Your task to perform on an android device: Open ESPN.com Image 0: 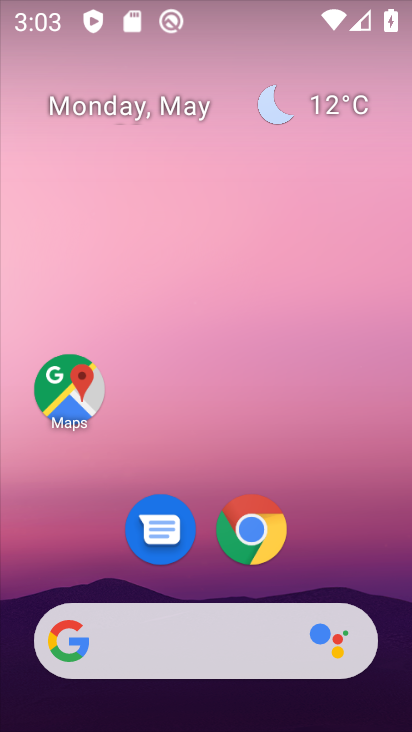
Step 0: drag from (345, 532) to (358, 144)
Your task to perform on an android device: Open ESPN.com Image 1: 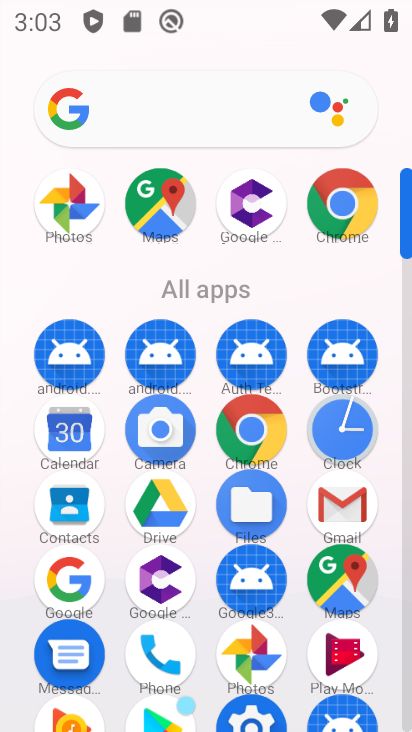
Step 1: click (255, 428)
Your task to perform on an android device: Open ESPN.com Image 2: 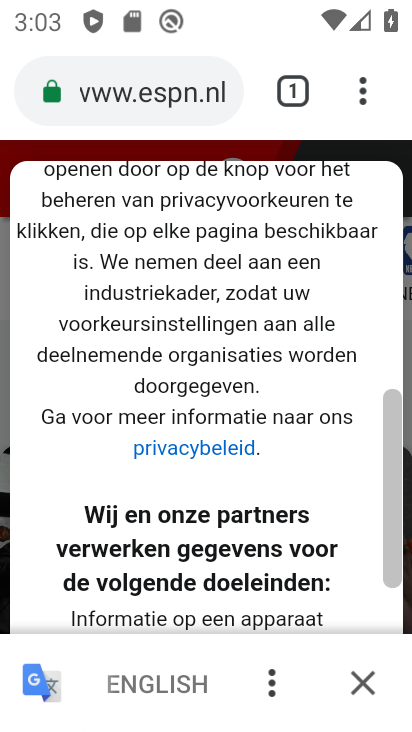
Step 2: task complete